Your task to perform on an android device: Turn off the flashlight Image 0: 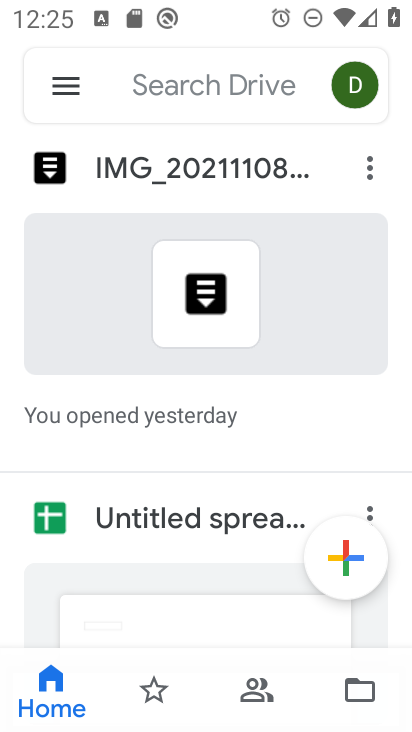
Step 0: press home button
Your task to perform on an android device: Turn off the flashlight Image 1: 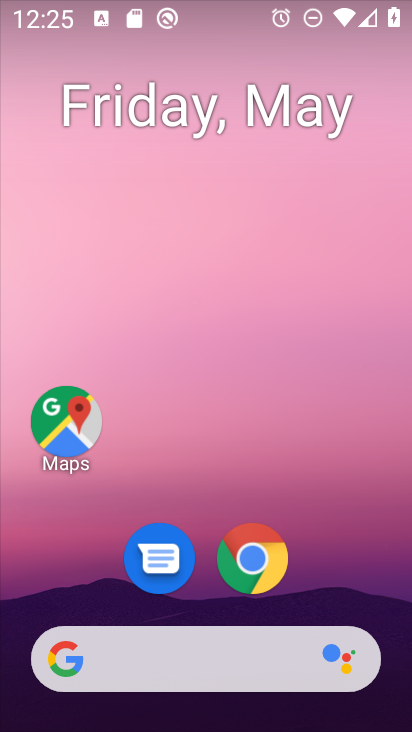
Step 1: drag from (190, 3) to (218, 545)
Your task to perform on an android device: Turn off the flashlight Image 2: 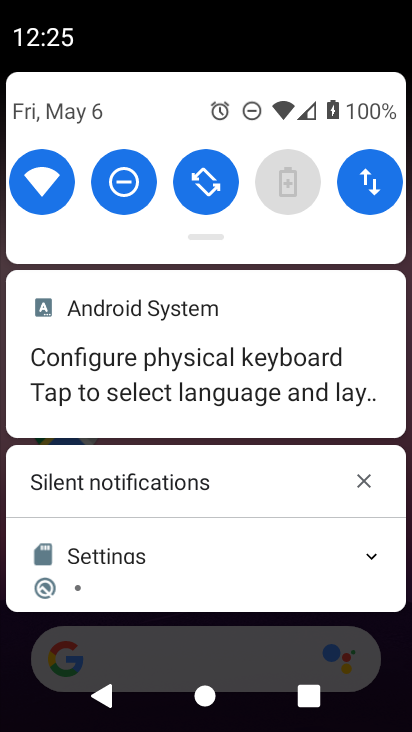
Step 2: drag from (207, 237) to (206, 569)
Your task to perform on an android device: Turn off the flashlight Image 3: 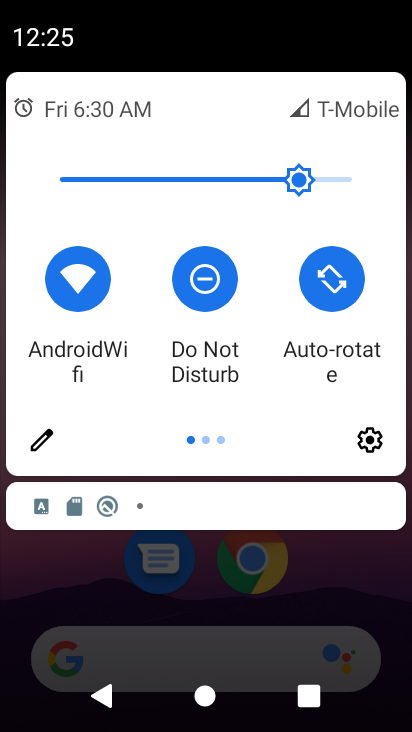
Step 3: click (35, 436)
Your task to perform on an android device: Turn off the flashlight Image 4: 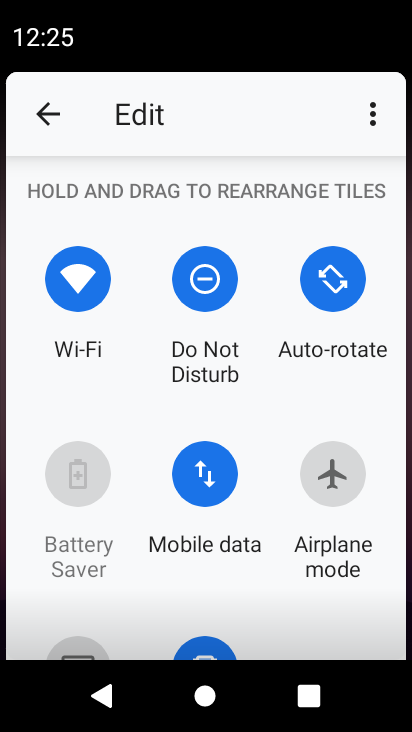
Step 4: task complete